Your task to perform on an android device: Search for flights from NYC to San Diego Image 0: 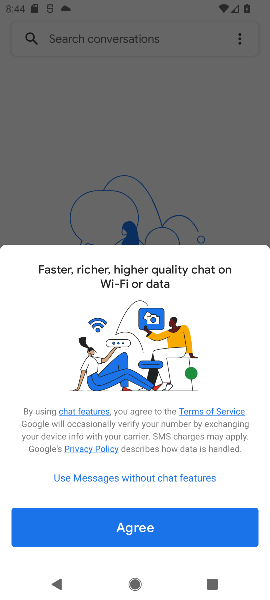
Step 0: press home button
Your task to perform on an android device: Search for flights from NYC to San Diego Image 1: 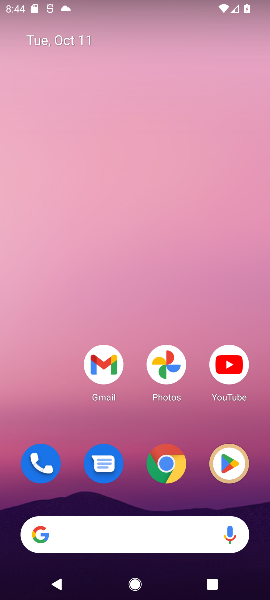
Step 1: drag from (90, 516) to (93, 155)
Your task to perform on an android device: Search for flights from NYC to San Diego Image 2: 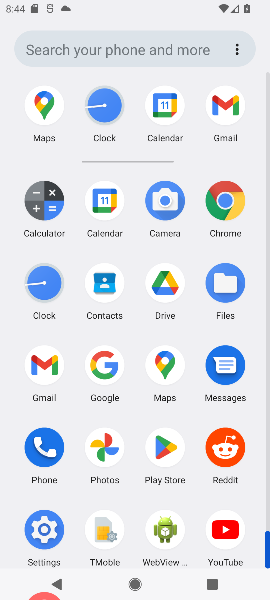
Step 2: click (100, 365)
Your task to perform on an android device: Search for flights from NYC to San Diego Image 3: 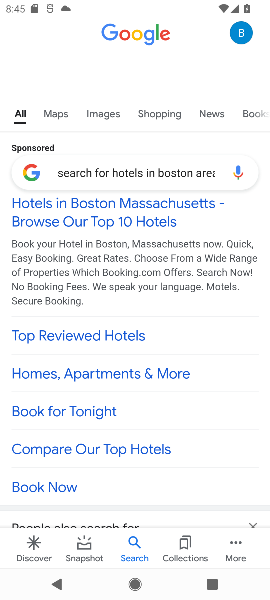
Step 3: click (122, 172)
Your task to perform on an android device: Search for flights from NYC to San Diego Image 4: 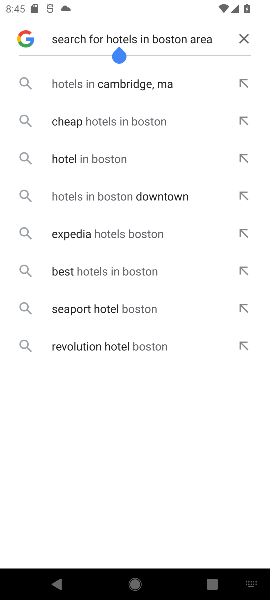
Step 4: click (248, 36)
Your task to perform on an android device: Search for flights from NYC to San Diego Image 5: 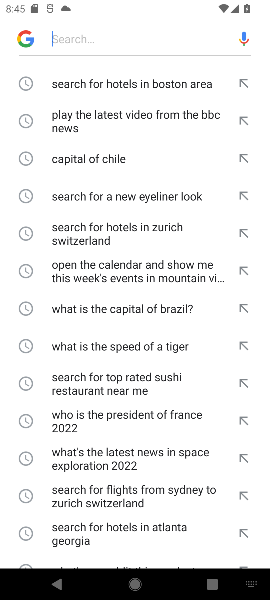
Step 5: click (110, 33)
Your task to perform on an android device: Search for flights from NYC to San Diego Image 6: 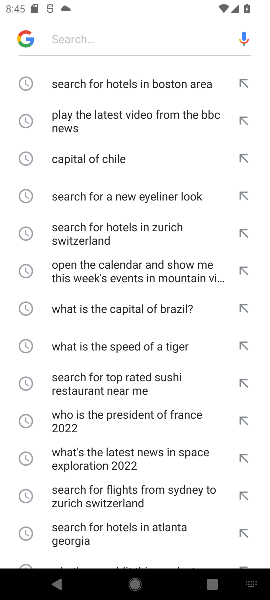
Step 6: type "Search for flights from NYC to San Diego "
Your task to perform on an android device: Search for flights from NYC to San Diego Image 7: 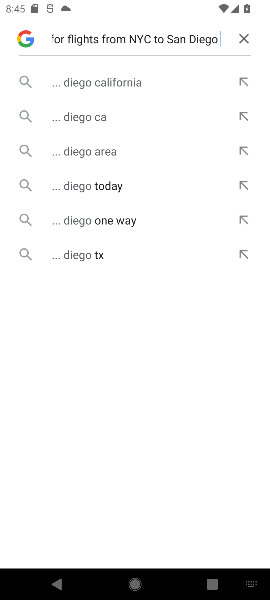
Step 7: click (120, 75)
Your task to perform on an android device: Search for flights from NYC to San Diego Image 8: 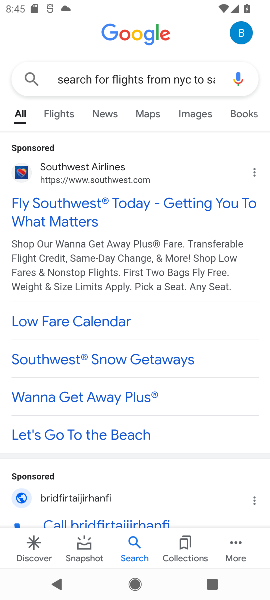
Step 8: click (74, 203)
Your task to perform on an android device: Search for flights from NYC to San Diego Image 9: 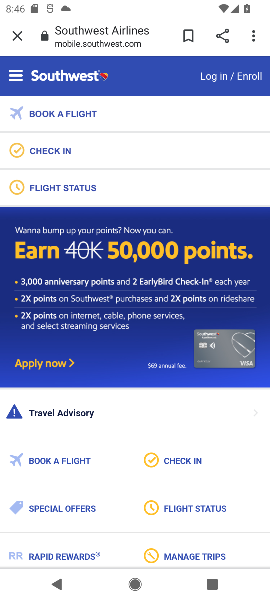
Step 9: task complete